Your task to perform on an android device: Is it going to rain today? Image 0: 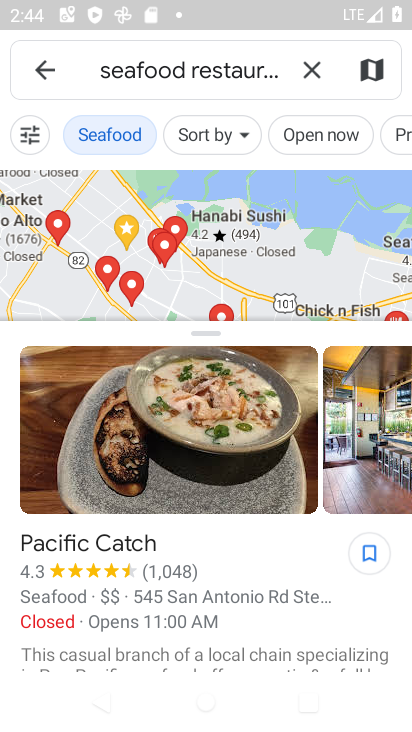
Step 0: press home button
Your task to perform on an android device: Is it going to rain today? Image 1: 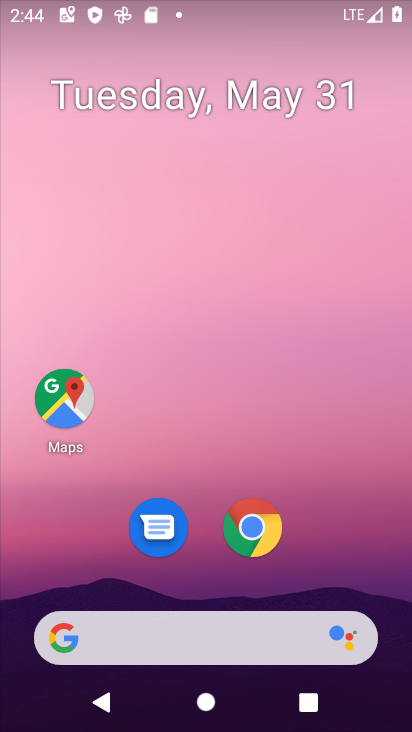
Step 1: click (86, 623)
Your task to perform on an android device: Is it going to rain today? Image 2: 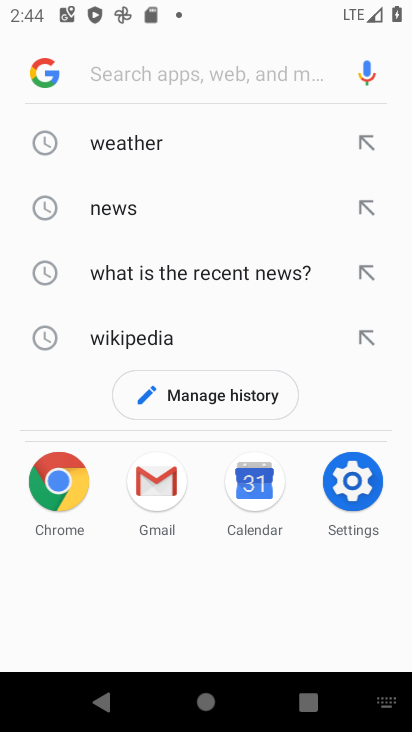
Step 2: click (45, 74)
Your task to perform on an android device: Is it going to rain today? Image 3: 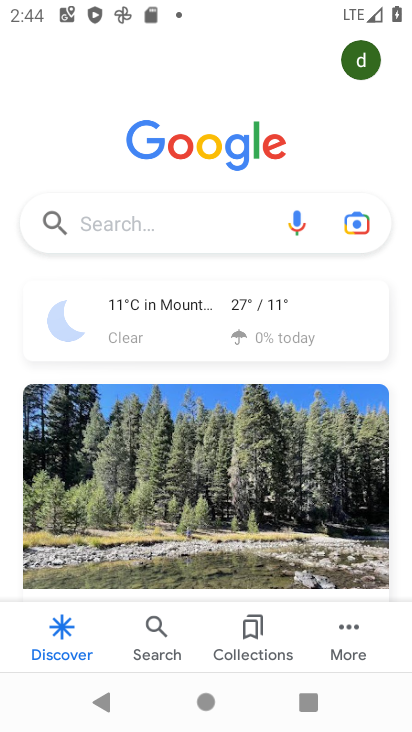
Step 3: click (168, 330)
Your task to perform on an android device: Is it going to rain today? Image 4: 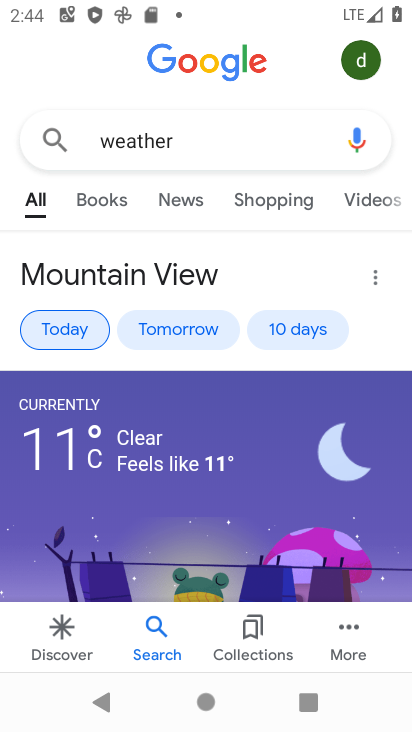
Step 4: task complete